Your task to perform on an android device: check android version Image 0: 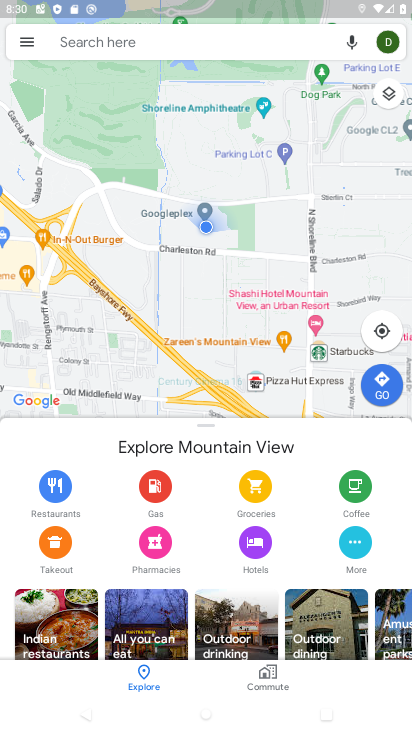
Step 0: press home button
Your task to perform on an android device: check android version Image 1: 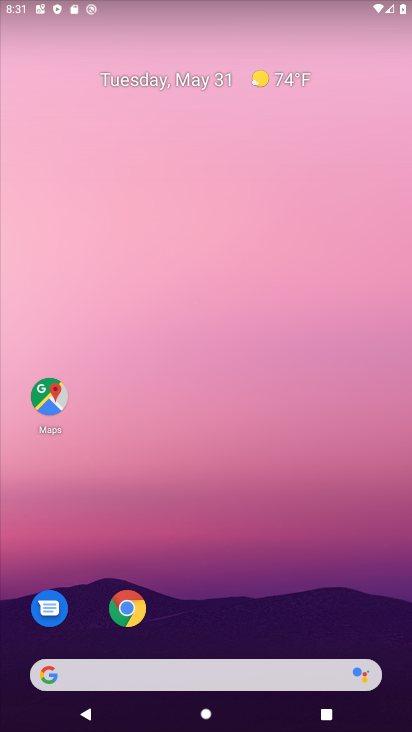
Step 1: drag from (228, 634) to (220, 120)
Your task to perform on an android device: check android version Image 2: 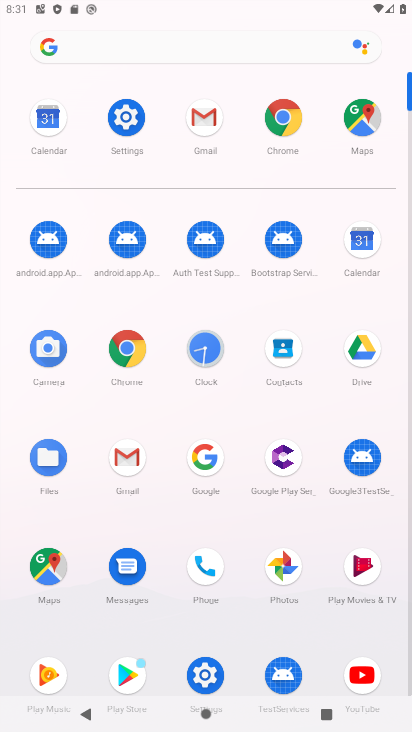
Step 2: click (125, 148)
Your task to perform on an android device: check android version Image 3: 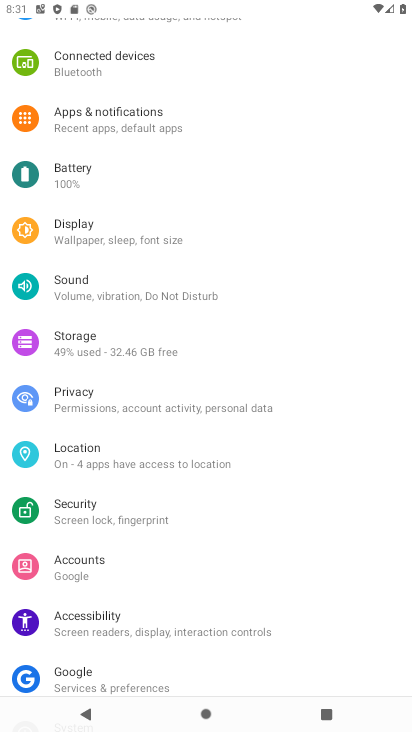
Step 3: drag from (266, 580) to (184, 28)
Your task to perform on an android device: check android version Image 4: 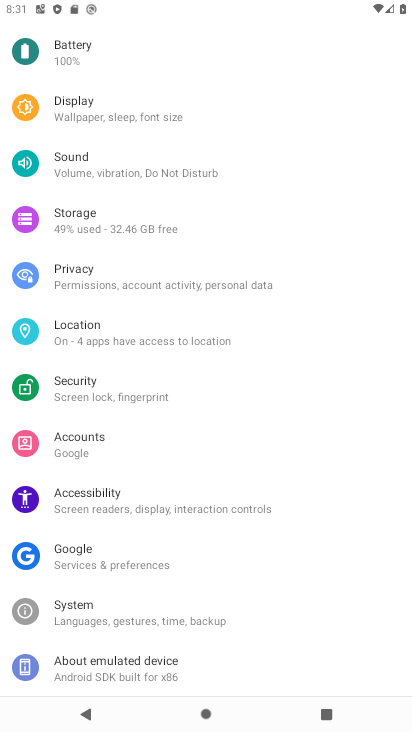
Step 4: click (24, 655)
Your task to perform on an android device: check android version Image 5: 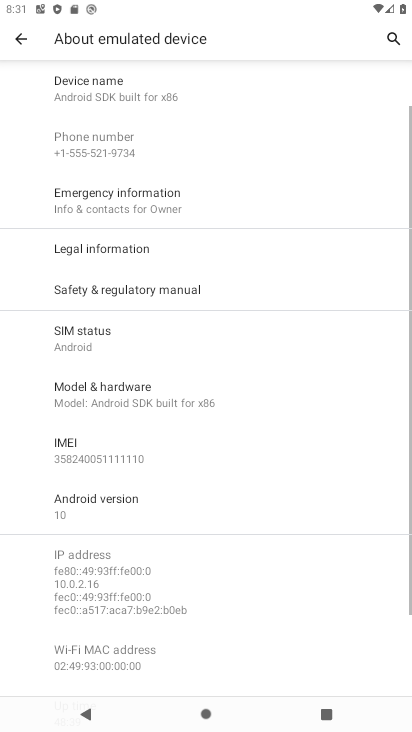
Step 5: click (70, 528)
Your task to perform on an android device: check android version Image 6: 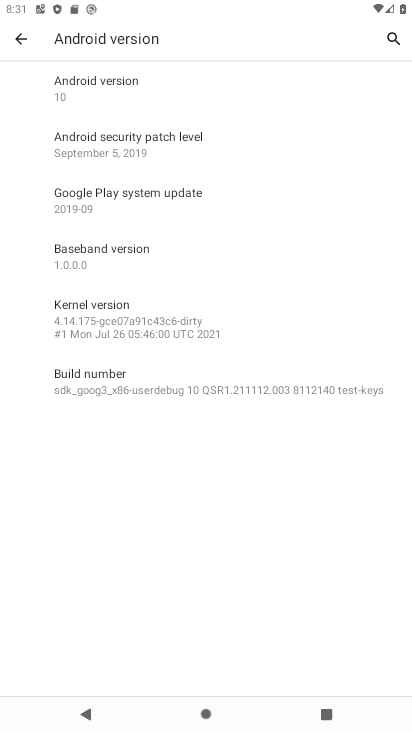
Step 6: task complete